Your task to perform on an android device: change the upload size in google photos Image 0: 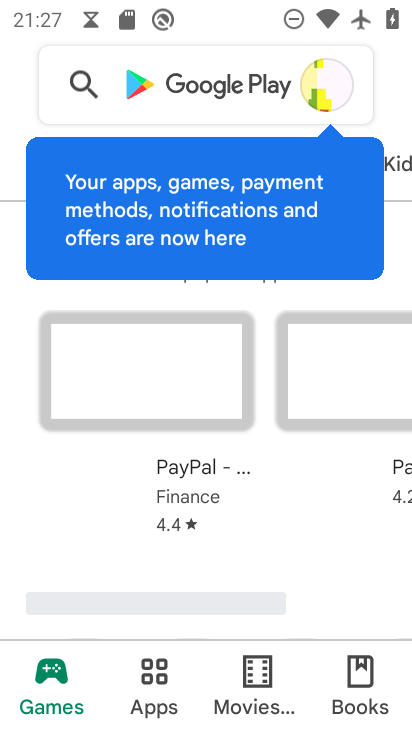
Step 0: press home button
Your task to perform on an android device: change the upload size in google photos Image 1: 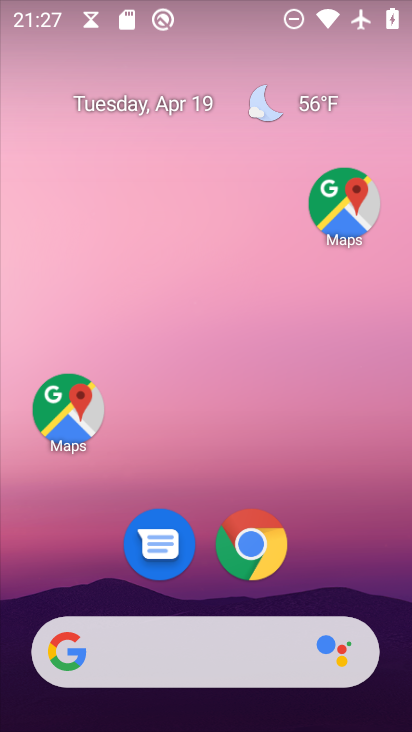
Step 1: drag from (166, 659) to (288, 116)
Your task to perform on an android device: change the upload size in google photos Image 2: 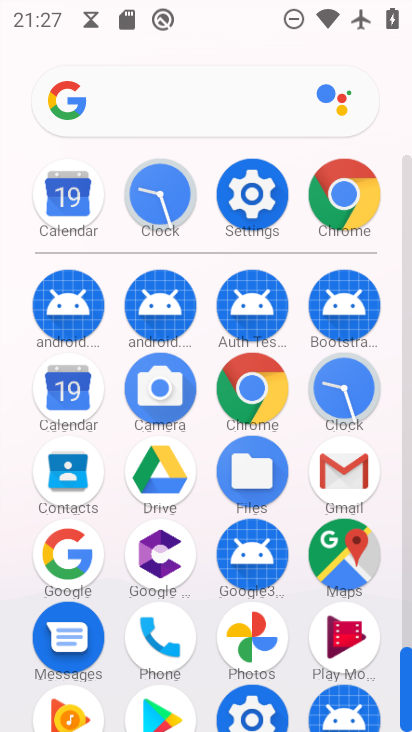
Step 2: click (253, 643)
Your task to perform on an android device: change the upload size in google photos Image 3: 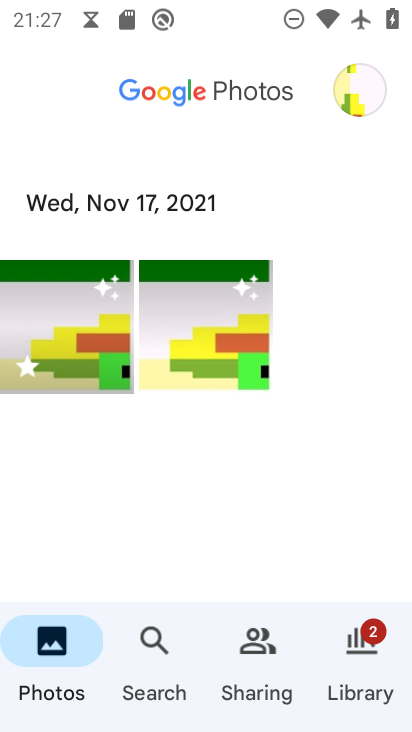
Step 3: click (362, 94)
Your task to perform on an android device: change the upload size in google photos Image 4: 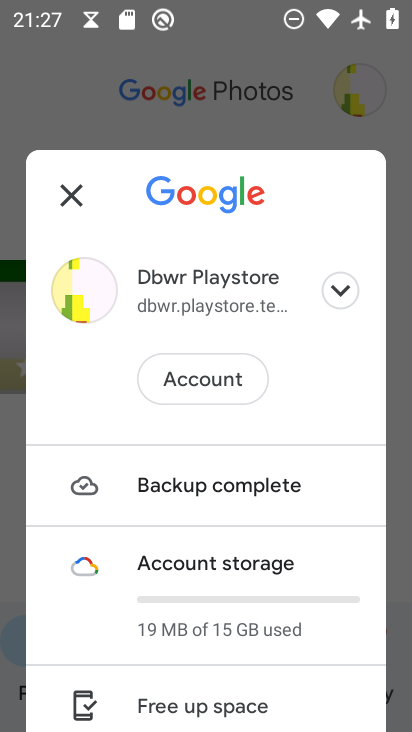
Step 4: drag from (141, 651) to (279, 205)
Your task to perform on an android device: change the upload size in google photos Image 5: 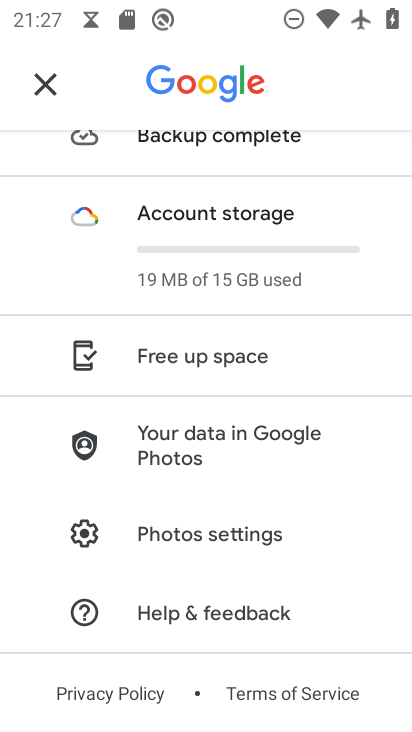
Step 5: click (215, 534)
Your task to perform on an android device: change the upload size in google photos Image 6: 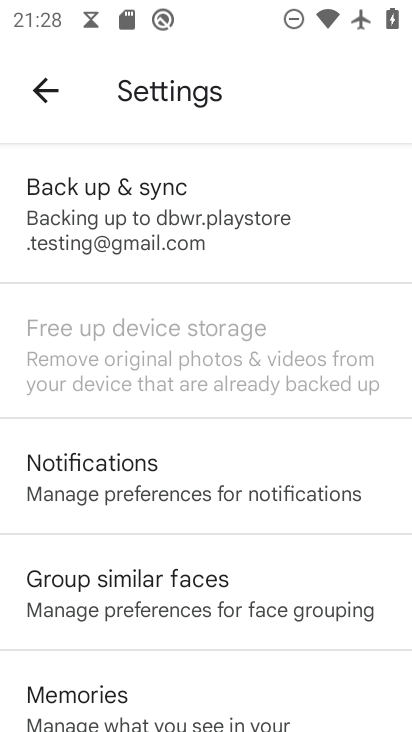
Step 6: click (150, 224)
Your task to perform on an android device: change the upload size in google photos Image 7: 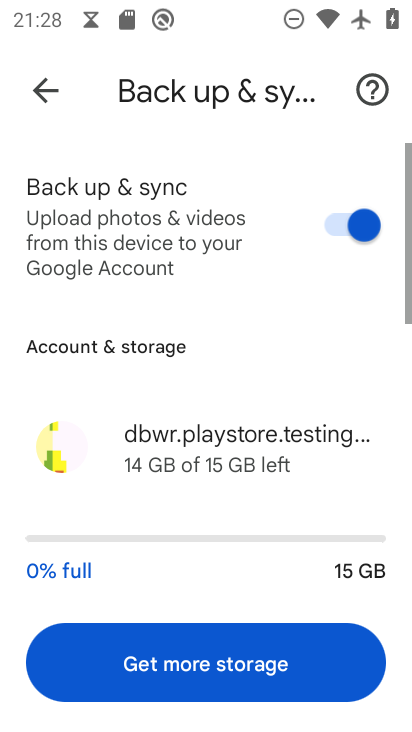
Step 7: drag from (167, 524) to (349, 98)
Your task to perform on an android device: change the upload size in google photos Image 8: 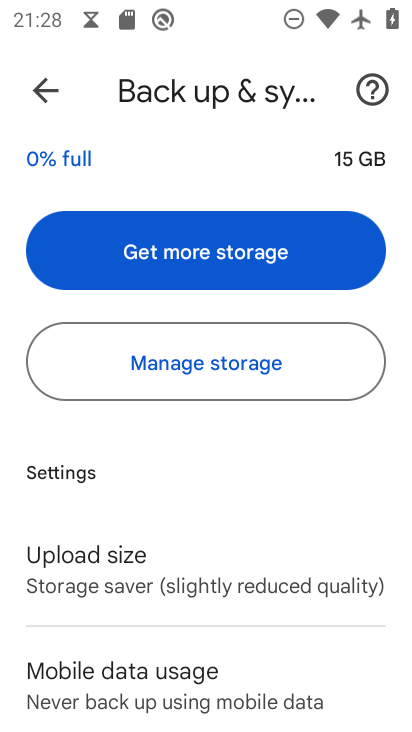
Step 8: click (126, 573)
Your task to perform on an android device: change the upload size in google photos Image 9: 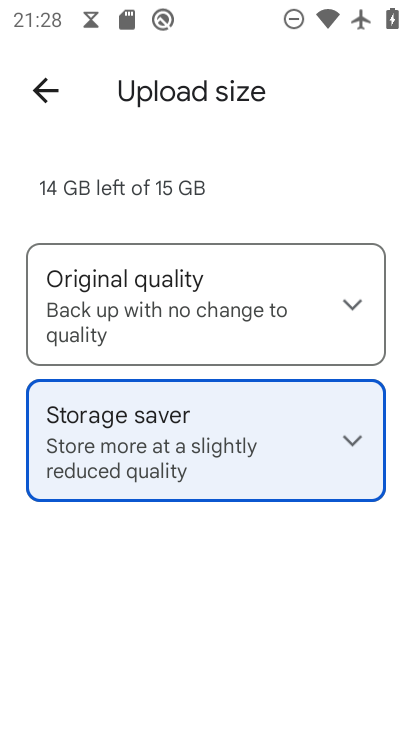
Step 9: click (194, 315)
Your task to perform on an android device: change the upload size in google photos Image 10: 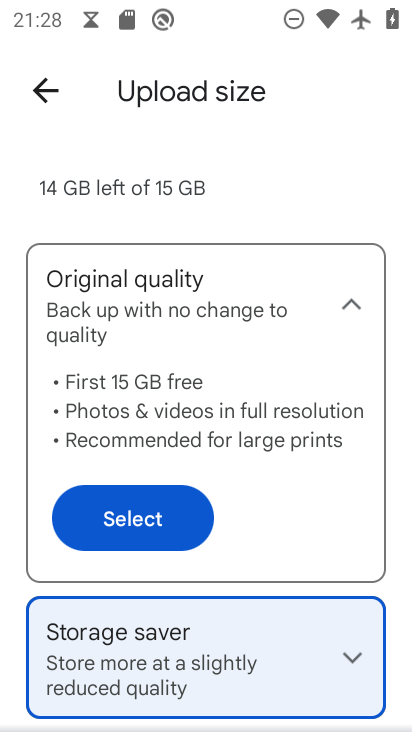
Step 10: click (132, 522)
Your task to perform on an android device: change the upload size in google photos Image 11: 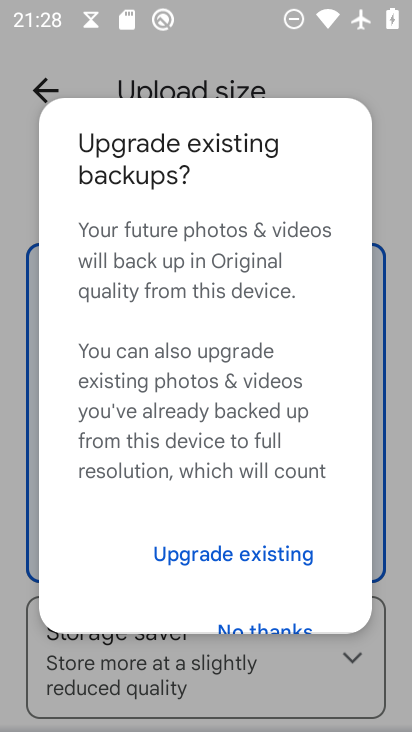
Step 11: click (244, 628)
Your task to perform on an android device: change the upload size in google photos Image 12: 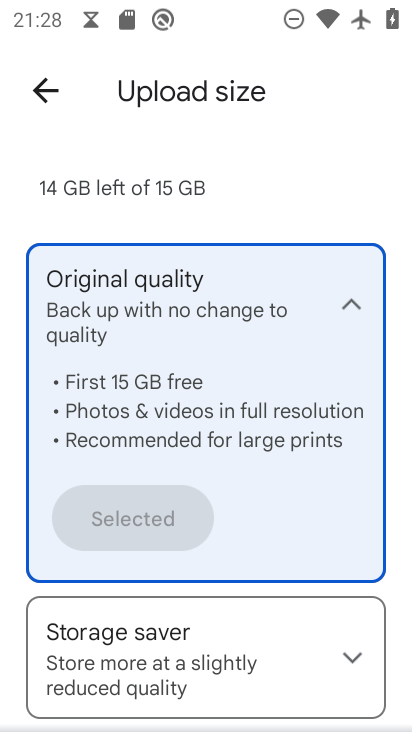
Step 12: task complete